Your task to perform on an android device: turn on showing notifications on the lock screen Image 0: 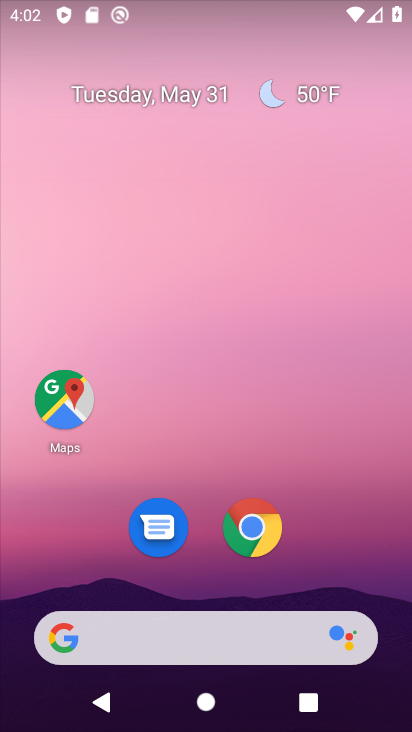
Step 0: click (271, 534)
Your task to perform on an android device: turn on showing notifications on the lock screen Image 1: 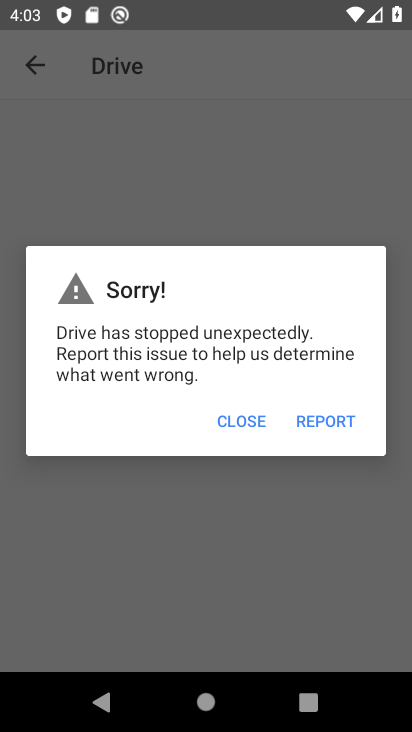
Step 1: press home button
Your task to perform on an android device: turn on showing notifications on the lock screen Image 2: 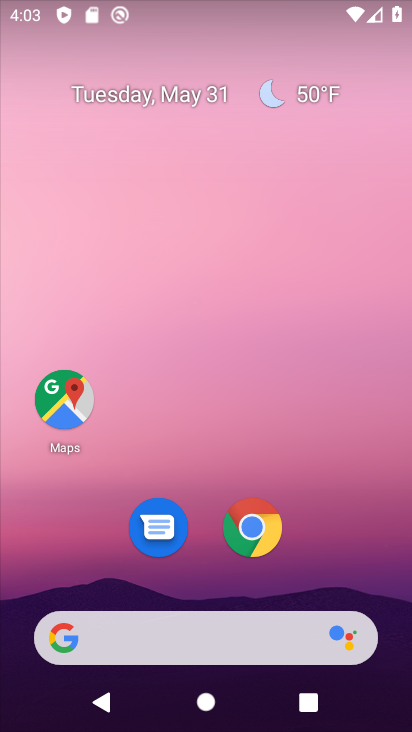
Step 2: drag from (203, 598) to (275, 337)
Your task to perform on an android device: turn on showing notifications on the lock screen Image 3: 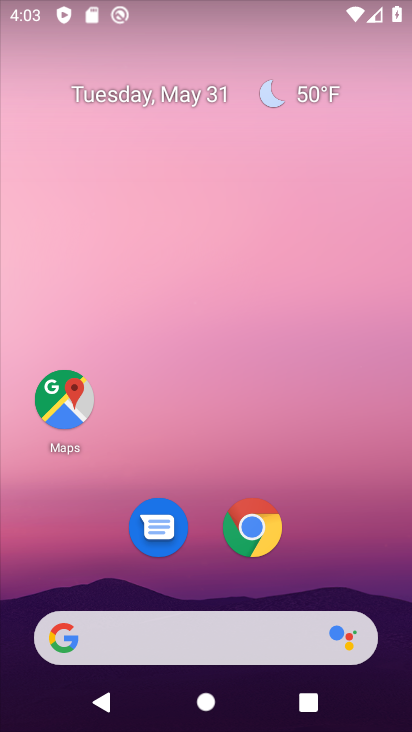
Step 3: drag from (134, 593) to (232, 151)
Your task to perform on an android device: turn on showing notifications on the lock screen Image 4: 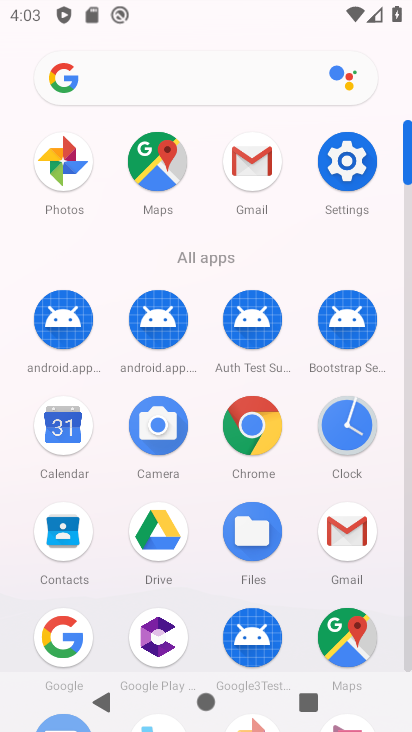
Step 4: drag from (237, 623) to (308, 337)
Your task to perform on an android device: turn on showing notifications on the lock screen Image 5: 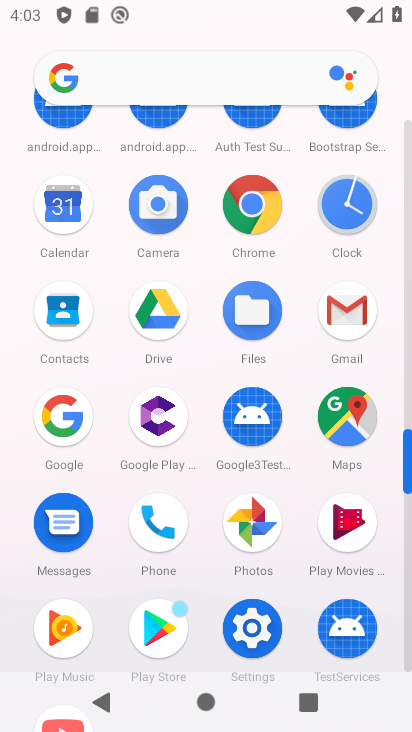
Step 5: click (252, 623)
Your task to perform on an android device: turn on showing notifications on the lock screen Image 6: 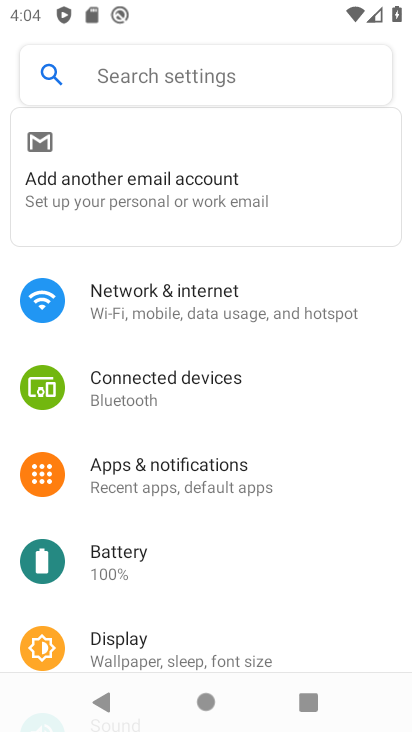
Step 6: click (257, 488)
Your task to perform on an android device: turn on showing notifications on the lock screen Image 7: 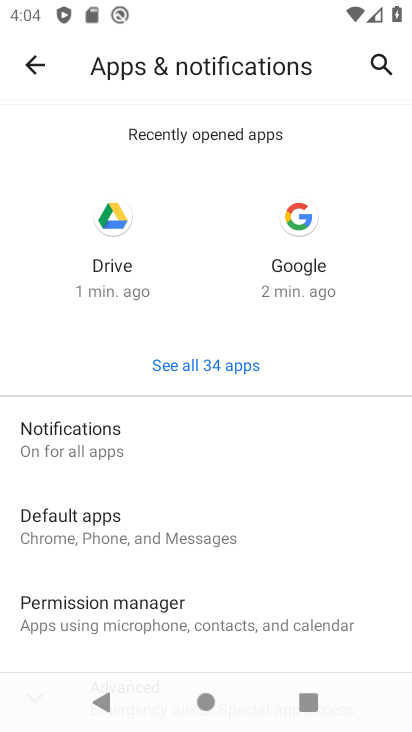
Step 7: drag from (236, 629) to (290, 323)
Your task to perform on an android device: turn on showing notifications on the lock screen Image 8: 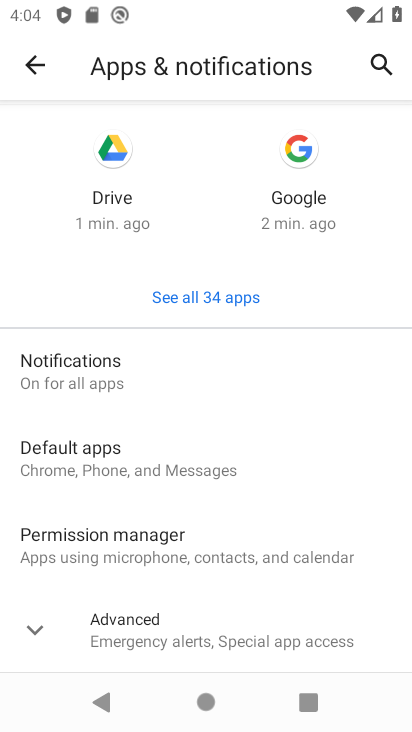
Step 8: click (176, 367)
Your task to perform on an android device: turn on showing notifications on the lock screen Image 9: 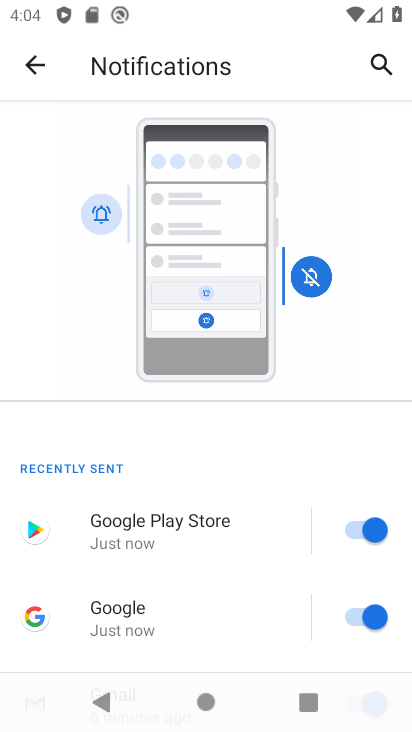
Step 9: drag from (213, 649) to (310, 162)
Your task to perform on an android device: turn on showing notifications on the lock screen Image 10: 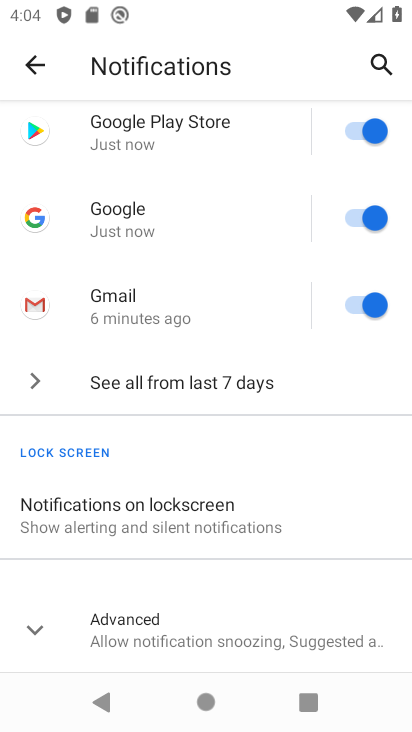
Step 10: click (209, 532)
Your task to perform on an android device: turn on showing notifications on the lock screen Image 11: 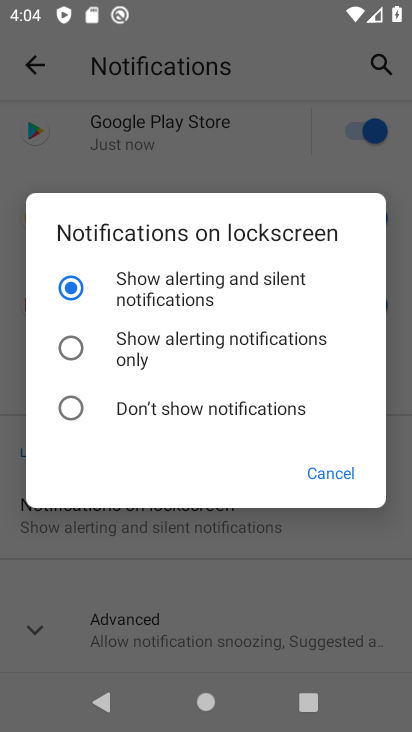
Step 11: task complete